Your task to perform on an android device: Go to eBay Image 0: 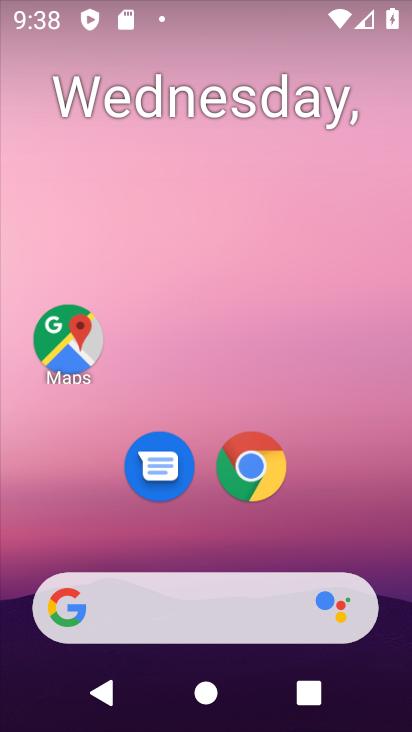
Step 0: click (241, 473)
Your task to perform on an android device: Go to eBay Image 1: 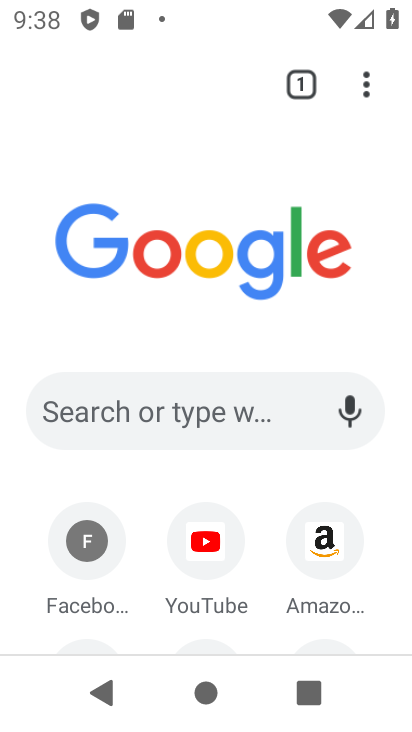
Step 1: click (222, 415)
Your task to perform on an android device: Go to eBay Image 2: 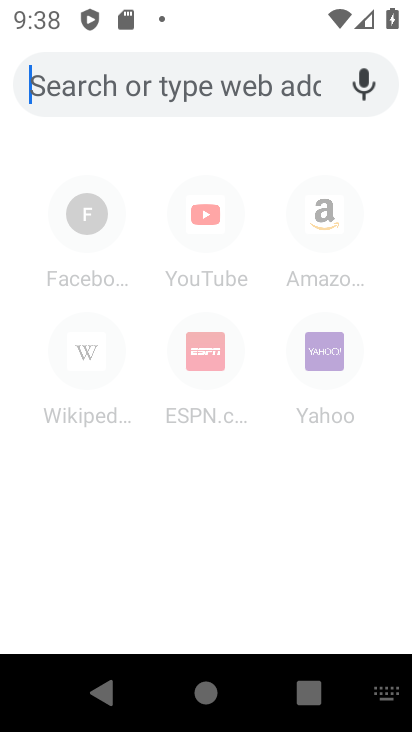
Step 2: type "eBay"
Your task to perform on an android device: Go to eBay Image 3: 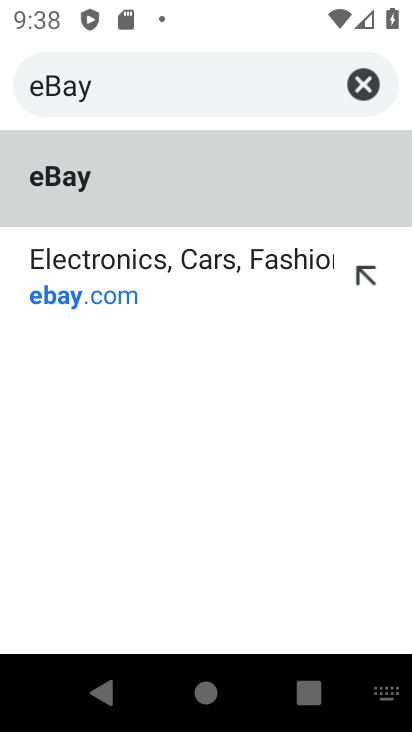
Step 3: click (46, 294)
Your task to perform on an android device: Go to eBay Image 4: 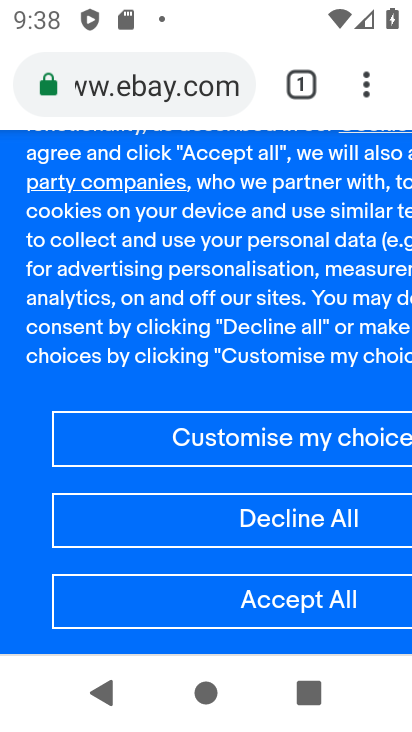
Step 4: task complete